Your task to perform on an android device: Set the phone to "Do not disturb". Image 0: 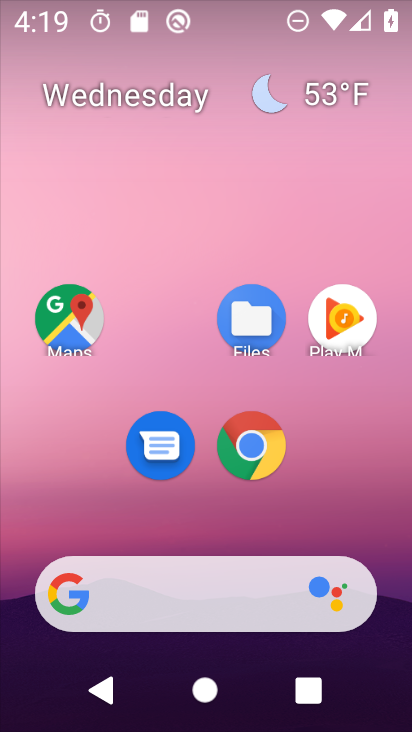
Step 0: drag from (314, 499) to (285, 69)
Your task to perform on an android device: Set the phone to "Do not disturb". Image 1: 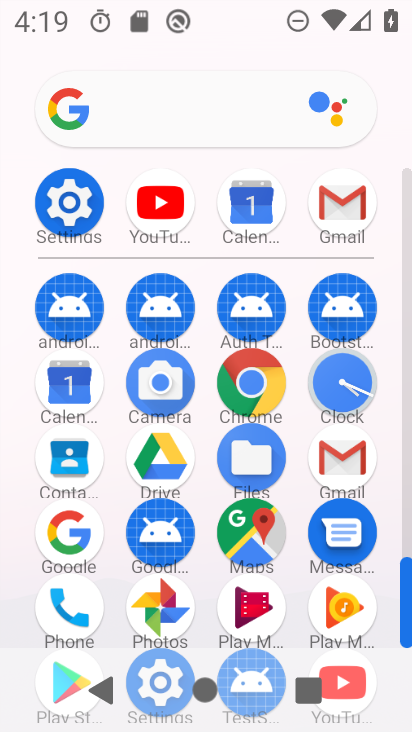
Step 1: click (84, 205)
Your task to perform on an android device: Set the phone to "Do not disturb". Image 2: 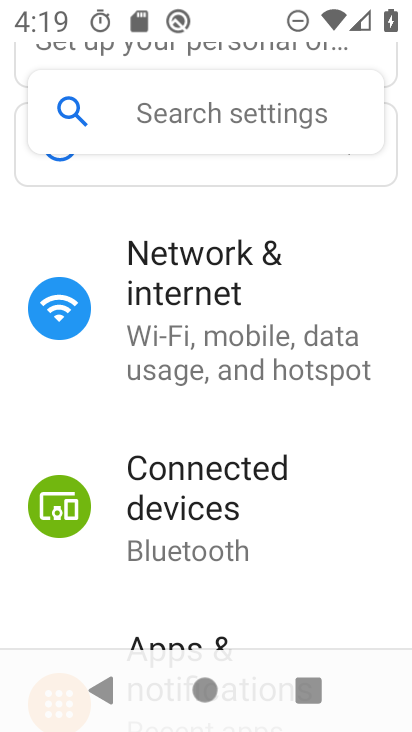
Step 2: drag from (299, 556) to (258, 183)
Your task to perform on an android device: Set the phone to "Do not disturb". Image 3: 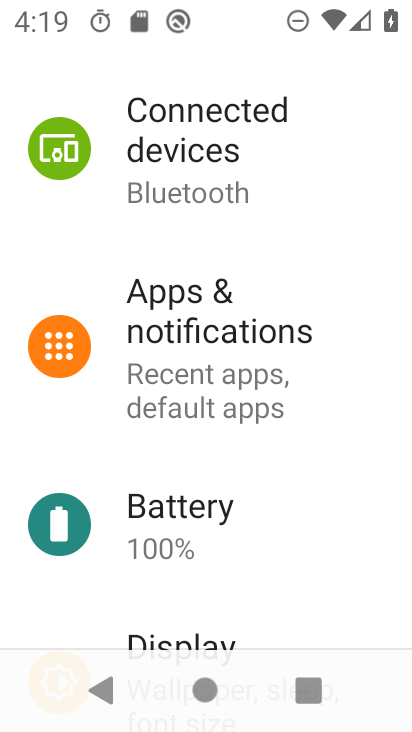
Step 3: drag from (237, 479) to (240, 121)
Your task to perform on an android device: Set the phone to "Do not disturb". Image 4: 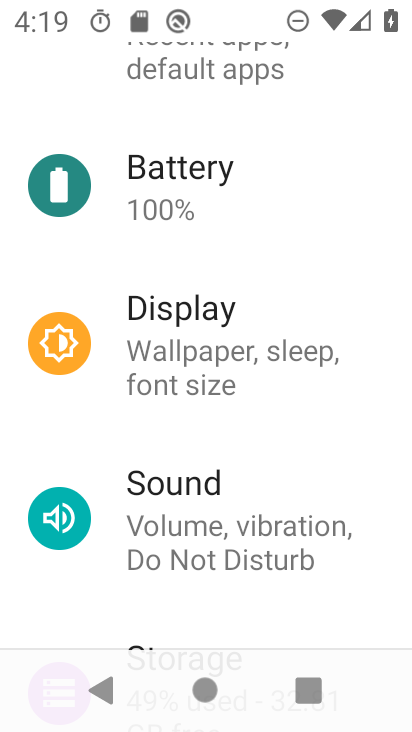
Step 4: drag from (241, 394) to (220, 119)
Your task to perform on an android device: Set the phone to "Do not disturb". Image 5: 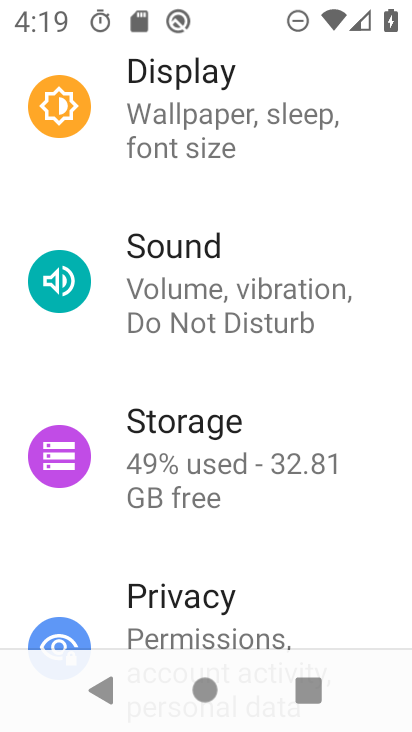
Step 5: click (216, 309)
Your task to perform on an android device: Set the phone to "Do not disturb". Image 6: 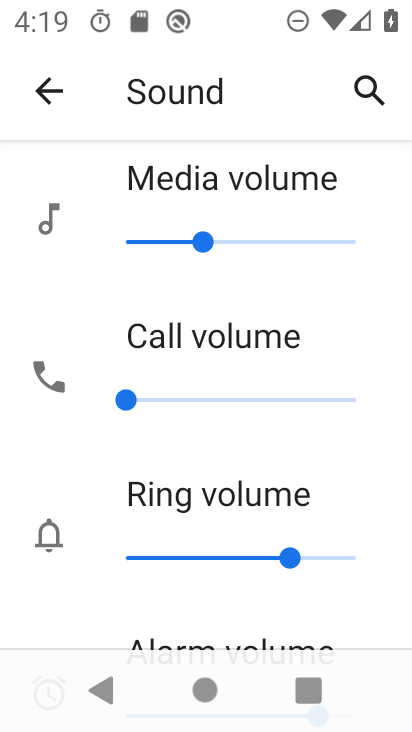
Step 6: drag from (330, 565) to (317, 154)
Your task to perform on an android device: Set the phone to "Do not disturb". Image 7: 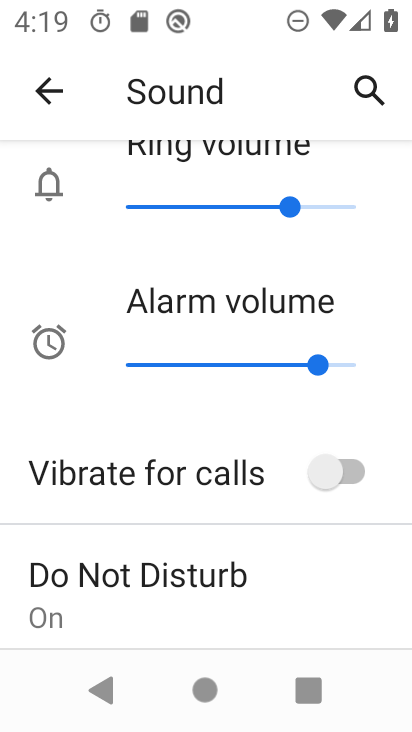
Step 7: drag from (267, 585) to (289, 165)
Your task to perform on an android device: Set the phone to "Do not disturb". Image 8: 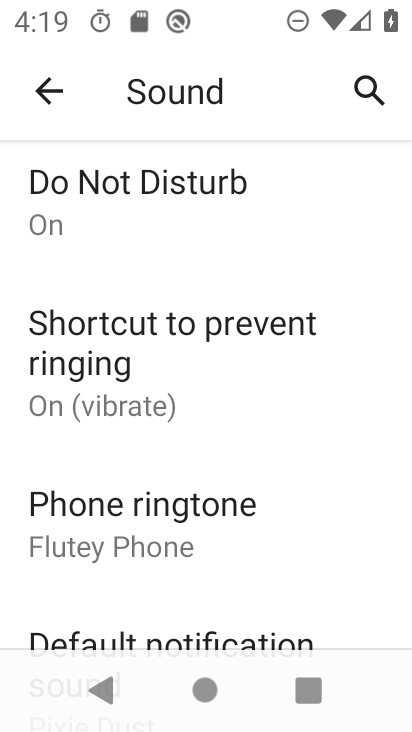
Step 8: click (194, 216)
Your task to perform on an android device: Set the phone to "Do not disturb". Image 9: 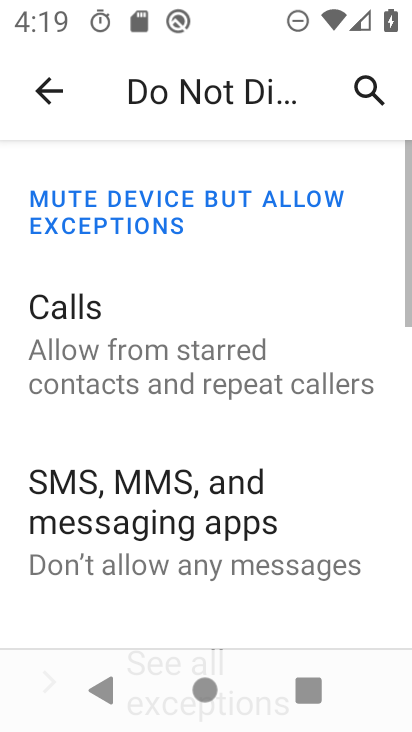
Step 9: task complete